Your task to perform on an android device: see tabs open on other devices in the chrome app Image 0: 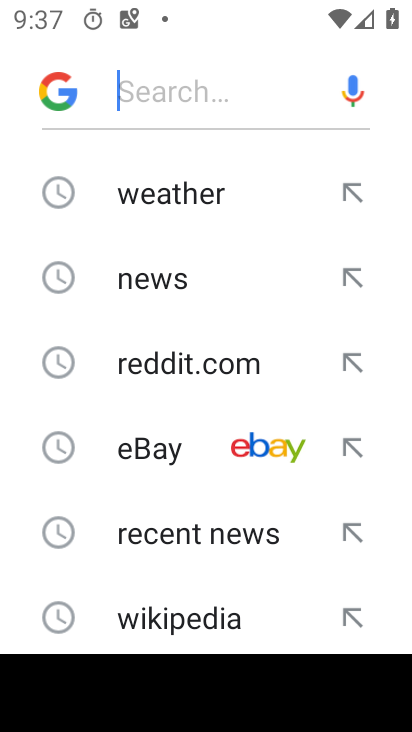
Step 0: press home button
Your task to perform on an android device: see tabs open on other devices in the chrome app Image 1: 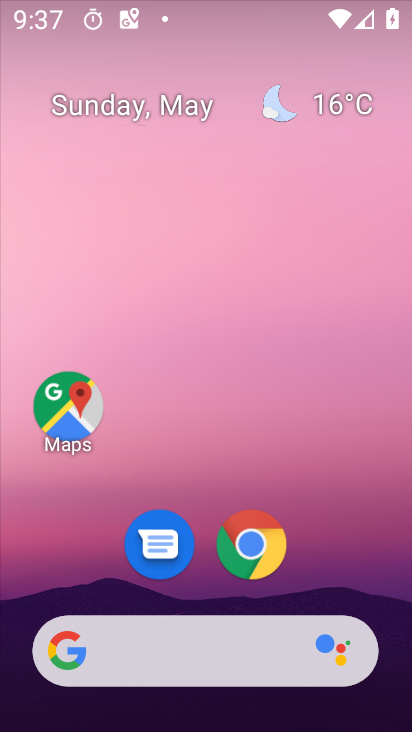
Step 1: drag from (329, 593) to (193, 59)
Your task to perform on an android device: see tabs open on other devices in the chrome app Image 2: 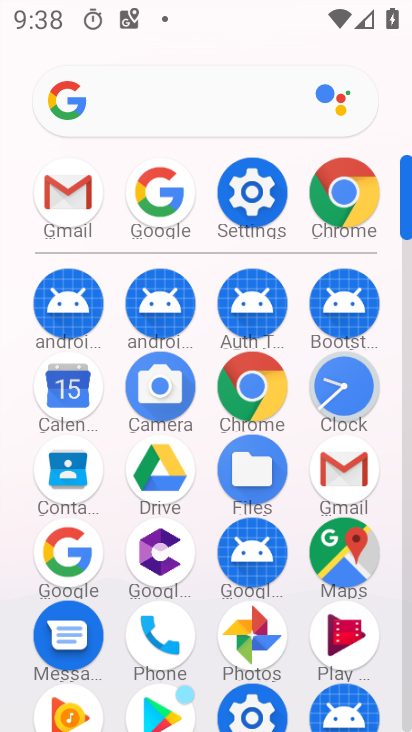
Step 2: click (349, 206)
Your task to perform on an android device: see tabs open on other devices in the chrome app Image 3: 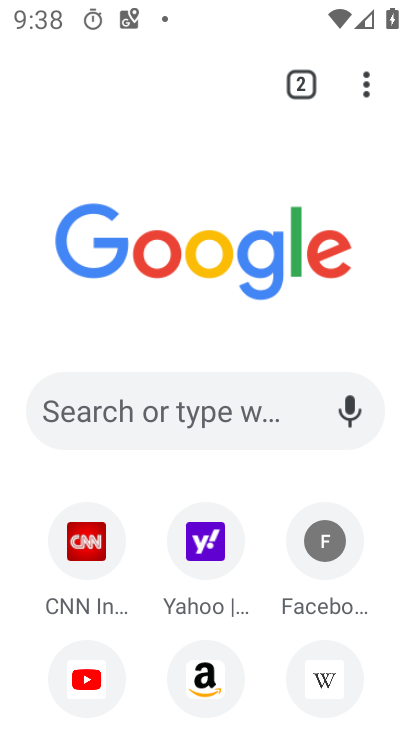
Step 3: click (363, 90)
Your task to perform on an android device: see tabs open on other devices in the chrome app Image 4: 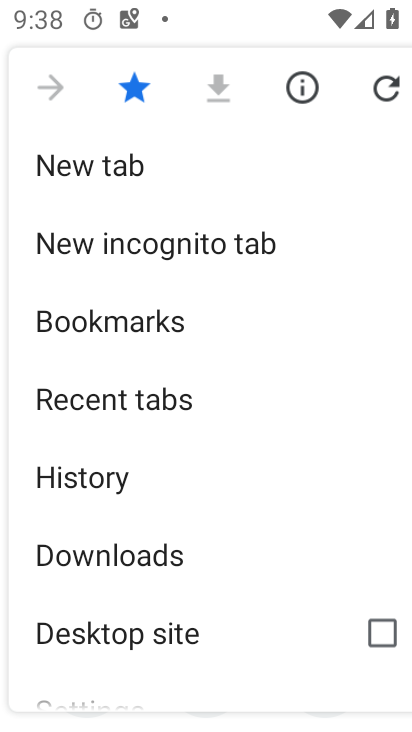
Step 4: click (172, 413)
Your task to perform on an android device: see tabs open on other devices in the chrome app Image 5: 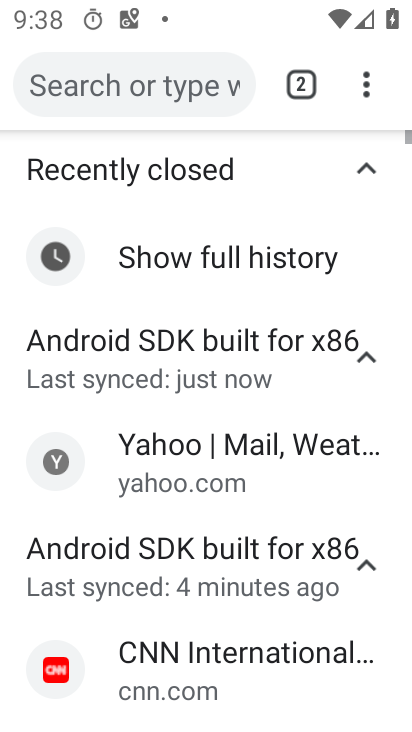
Step 5: task complete